Your task to perform on an android device: Check the news Image 0: 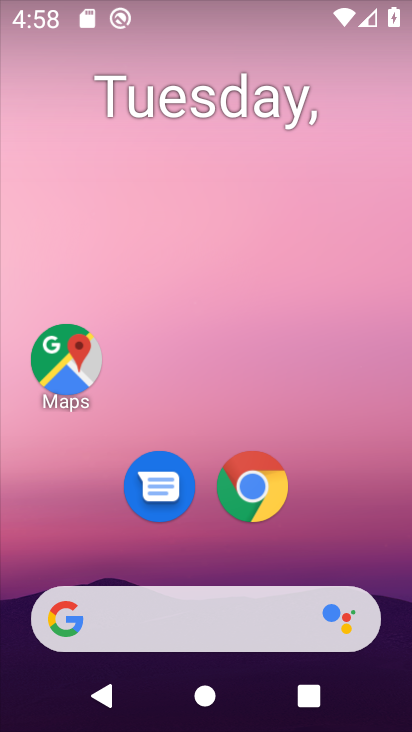
Step 0: drag from (0, 277) to (355, 234)
Your task to perform on an android device: Check the news Image 1: 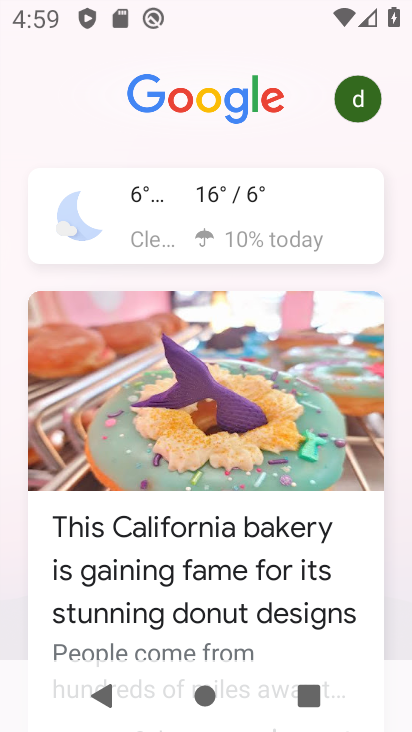
Step 1: task complete